Your task to perform on an android device: star an email in the gmail app Image 0: 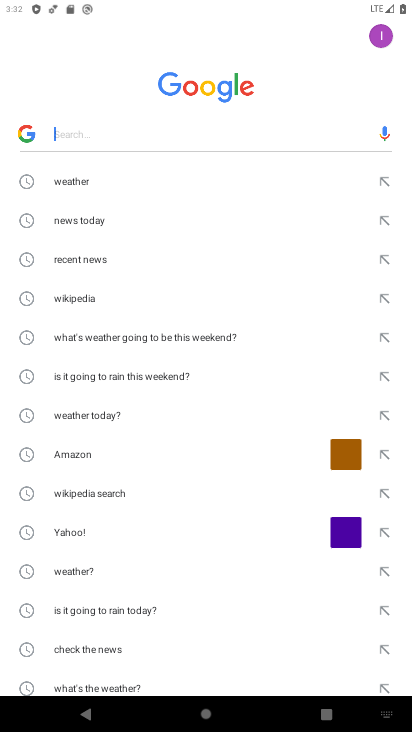
Step 0: press home button
Your task to perform on an android device: star an email in the gmail app Image 1: 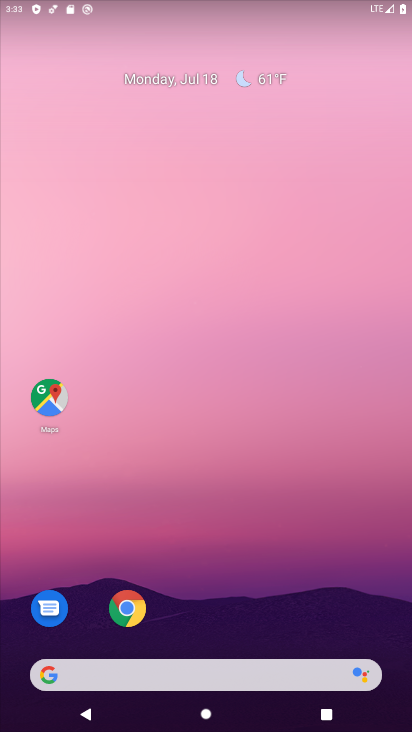
Step 1: drag from (276, 596) to (307, 45)
Your task to perform on an android device: star an email in the gmail app Image 2: 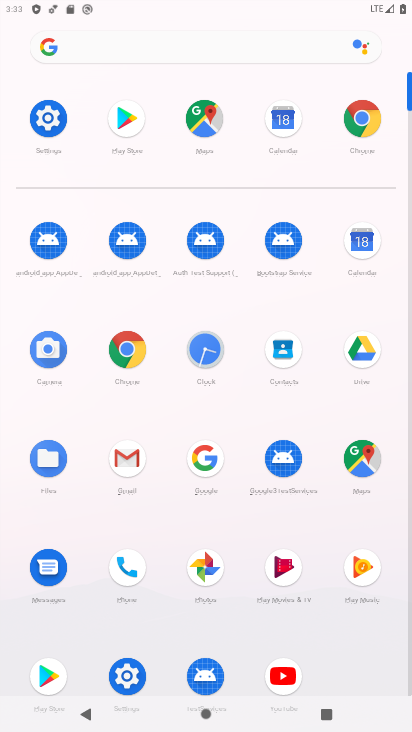
Step 2: click (133, 458)
Your task to perform on an android device: star an email in the gmail app Image 3: 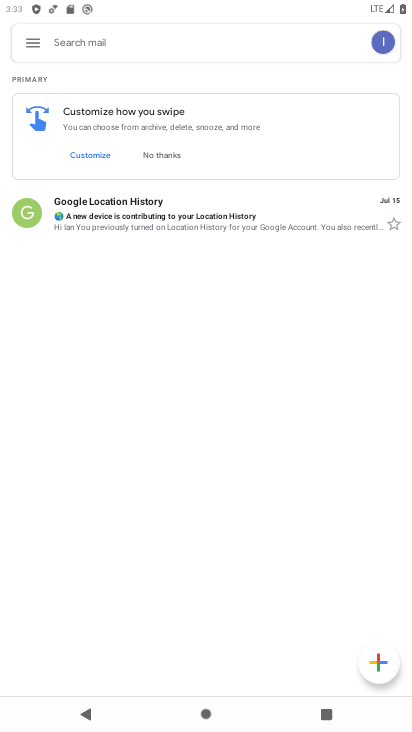
Step 3: click (391, 222)
Your task to perform on an android device: star an email in the gmail app Image 4: 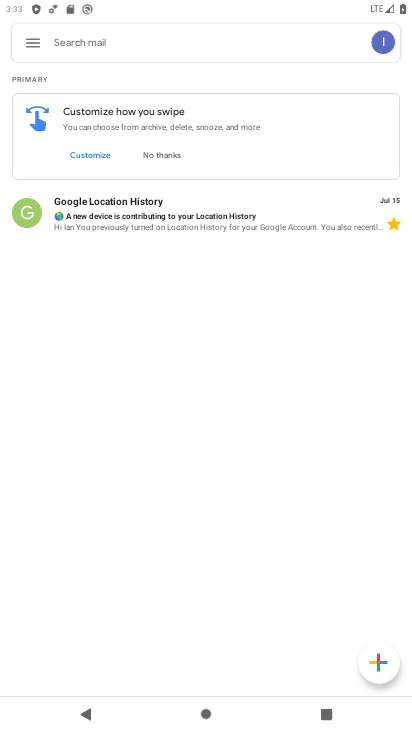
Step 4: task complete